Your task to perform on an android device: Go to Yahoo.com Image 0: 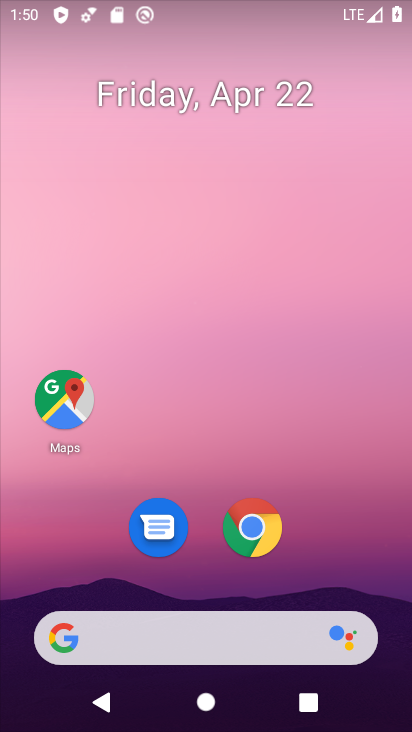
Step 0: click (259, 530)
Your task to perform on an android device: Go to Yahoo.com Image 1: 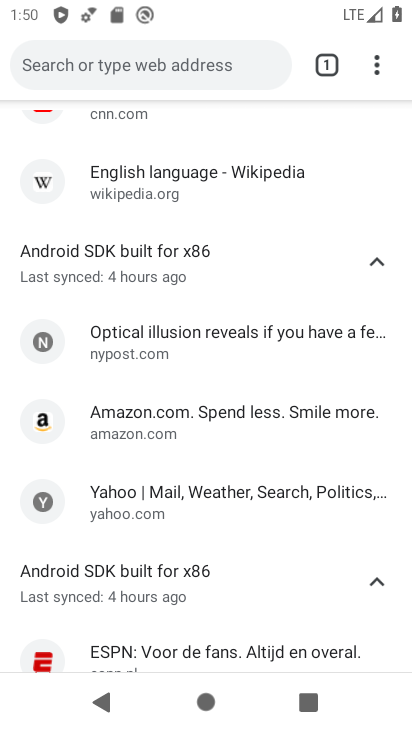
Step 1: click (330, 67)
Your task to perform on an android device: Go to Yahoo.com Image 2: 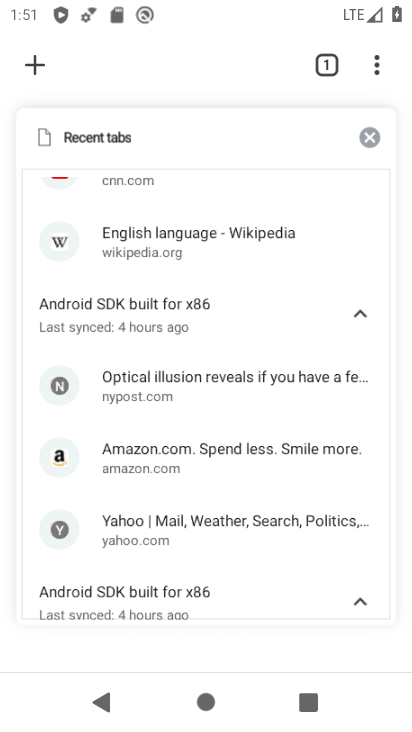
Step 2: click (40, 68)
Your task to perform on an android device: Go to Yahoo.com Image 3: 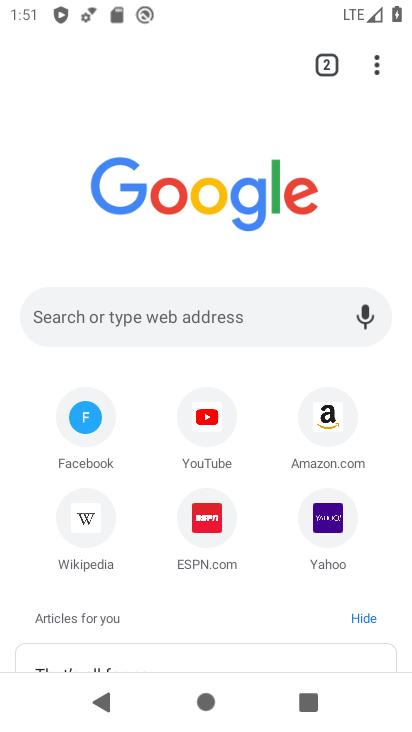
Step 3: click (348, 516)
Your task to perform on an android device: Go to Yahoo.com Image 4: 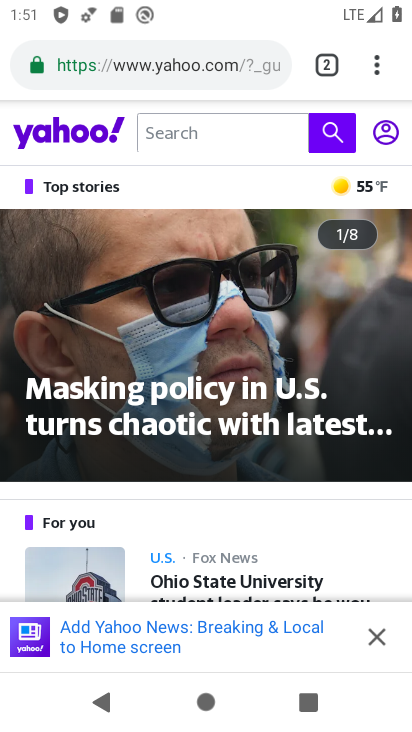
Step 4: task complete